Your task to perform on an android device: open app "Life360: Find Family & Friends" (install if not already installed), go to login, and select forgot password Image 0: 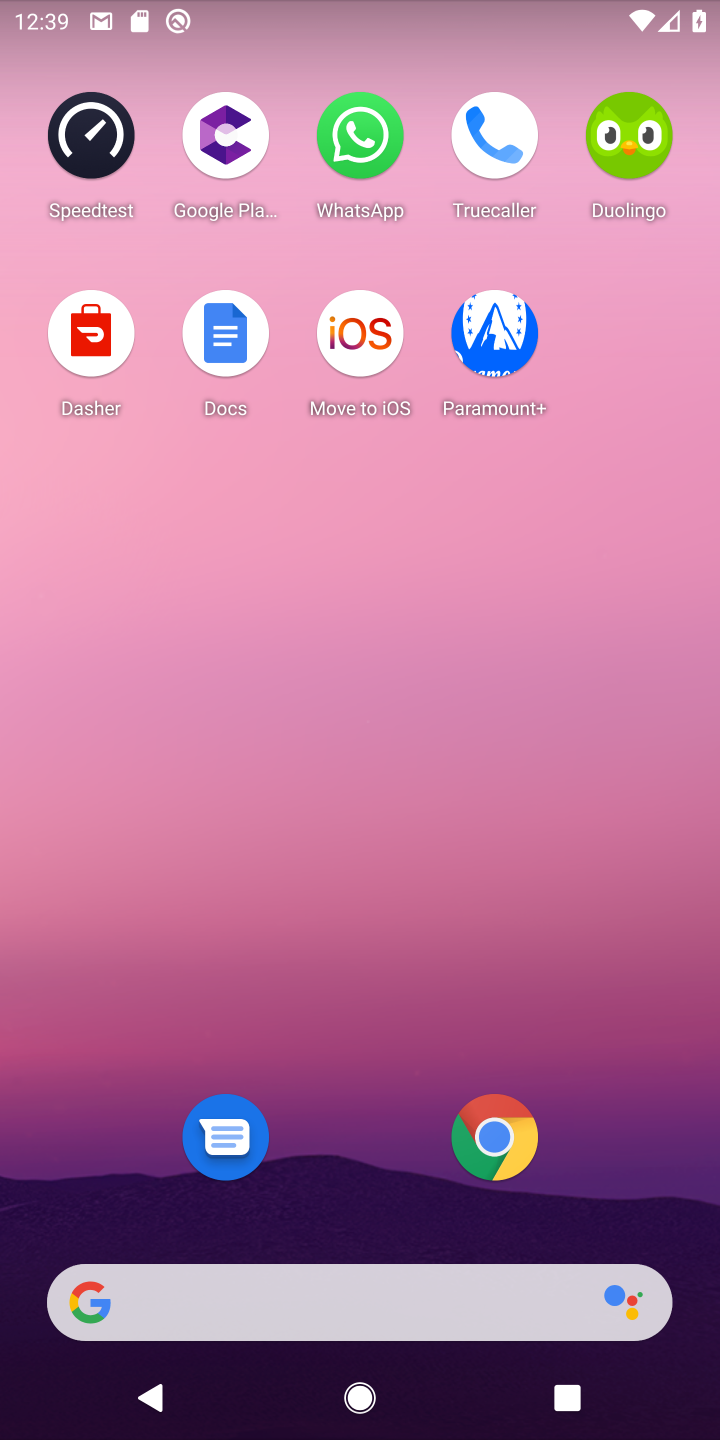
Step 0: drag from (622, 1217) to (565, 182)
Your task to perform on an android device: open app "Life360: Find Family & Friends" (install if not already installed), go to login, and select forgot password Image 1: 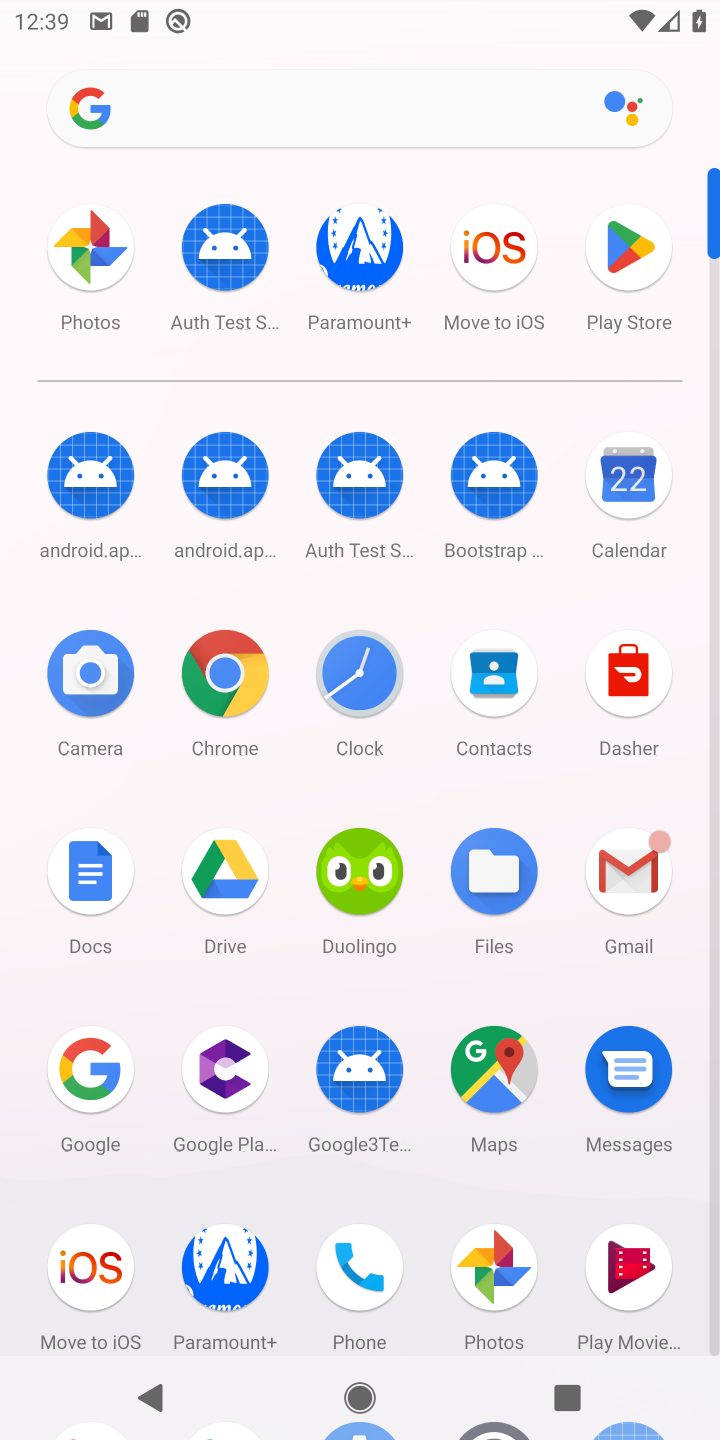
Step 1: drag from (552, 1196) to (571, 410)
Your task to perform on an android device: open app "Life360: Find Family & Friends" (install if not already installed), go to login, and select forgot password Image 2: 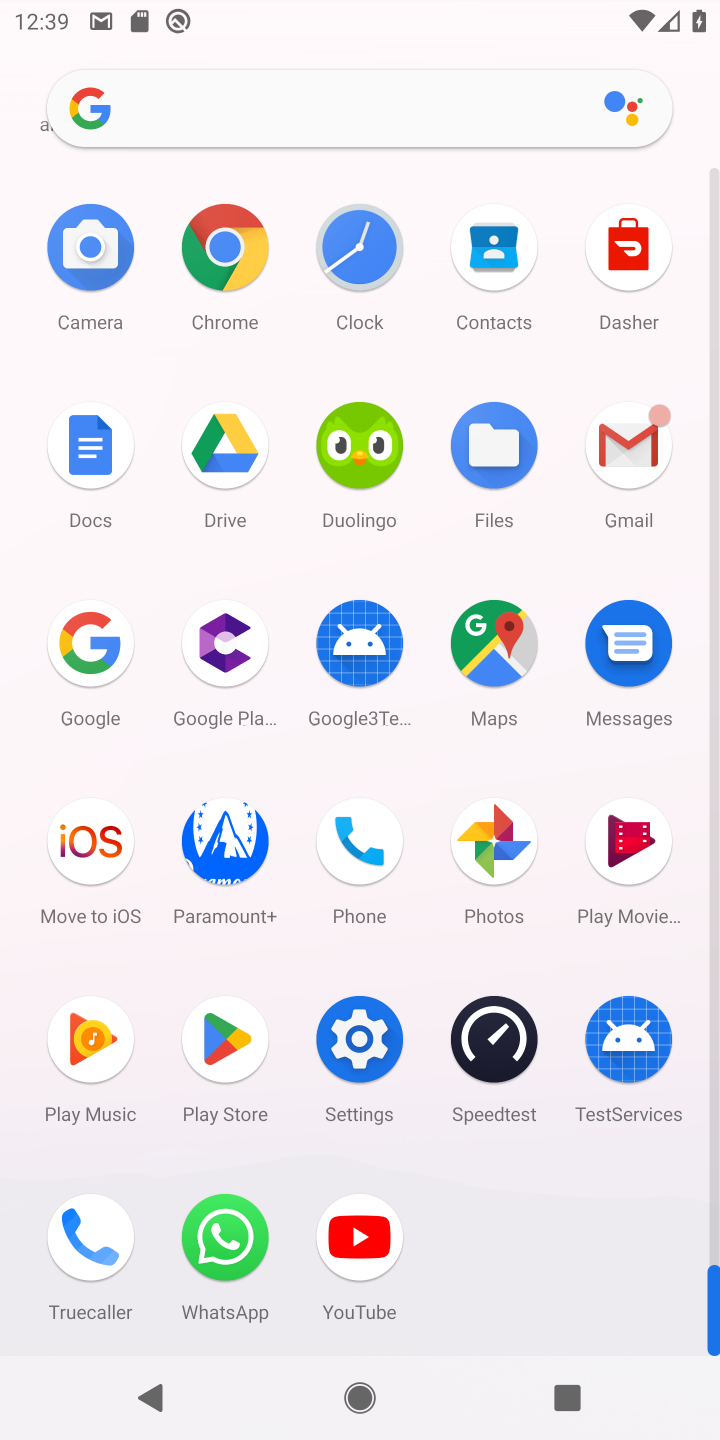
Step 2: click (226, 1048)
Your task to perform on an android device: open app "Life360: Find Family & Friends" (install if not already installed), go to login, and select forgot password Image 3: 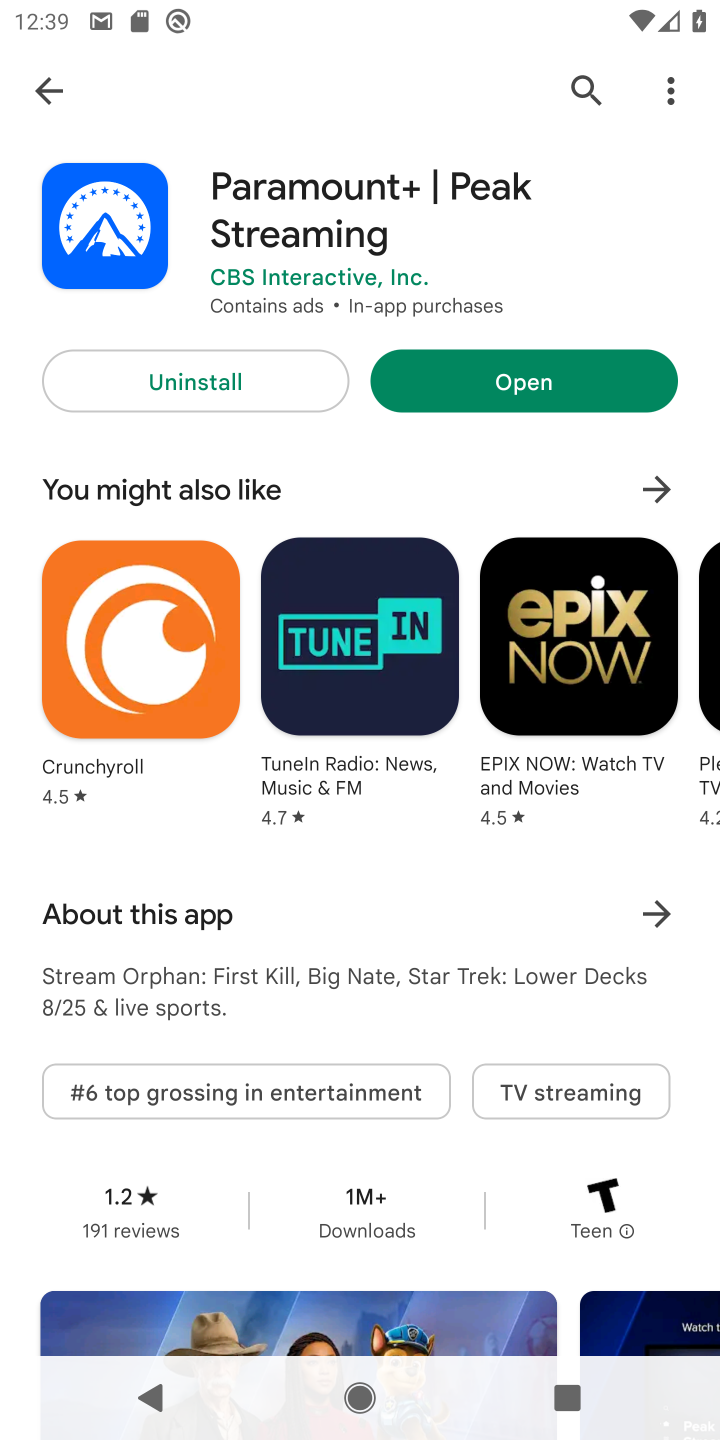
Step 3: click (581, 73)
Your task to perform on an android device: open app "Life360: Find Family & Friends" (install if not already installed), go to login, and select forgot password Image 4: 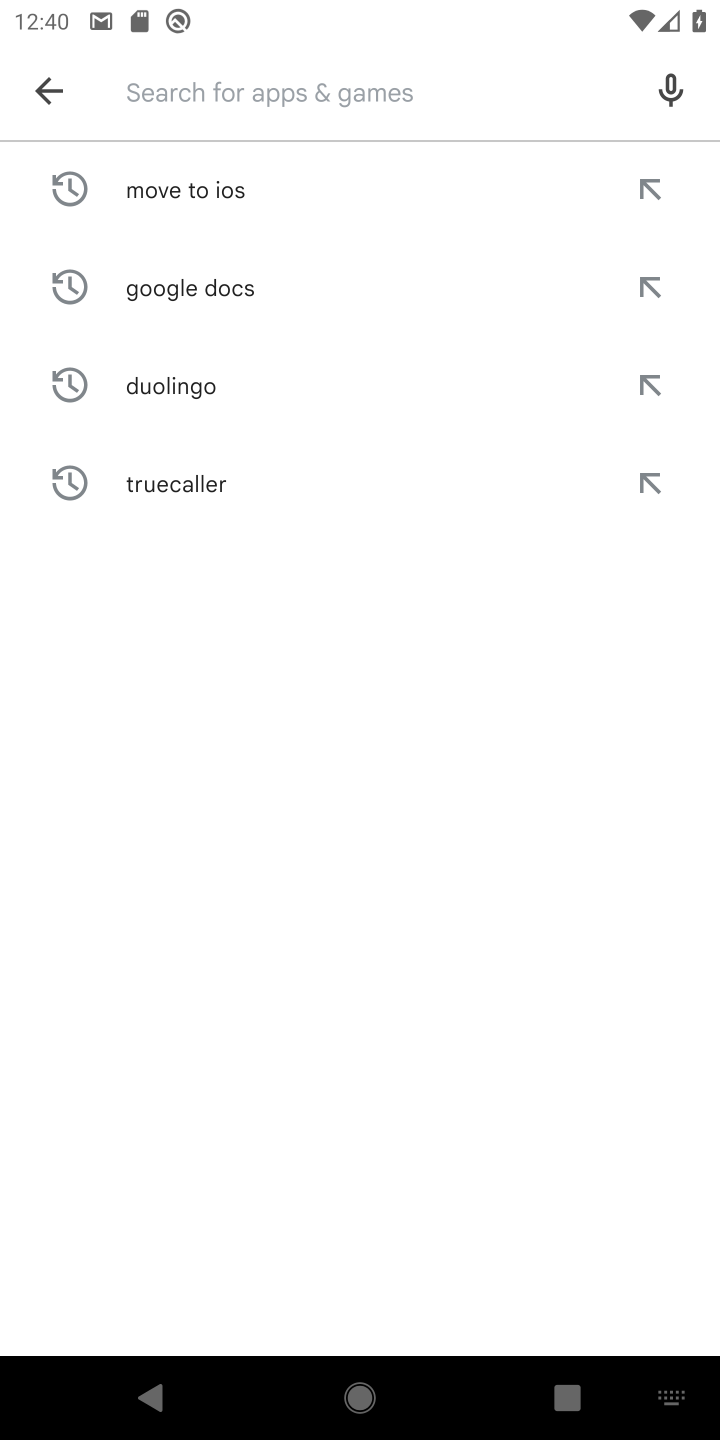
Step 4: type "life360: Find Family & Friends"
Your task to perform on an android device: open app "Life360: Find Family & Friends" (install if not already installed), go to login, and select forgot password Image 5: 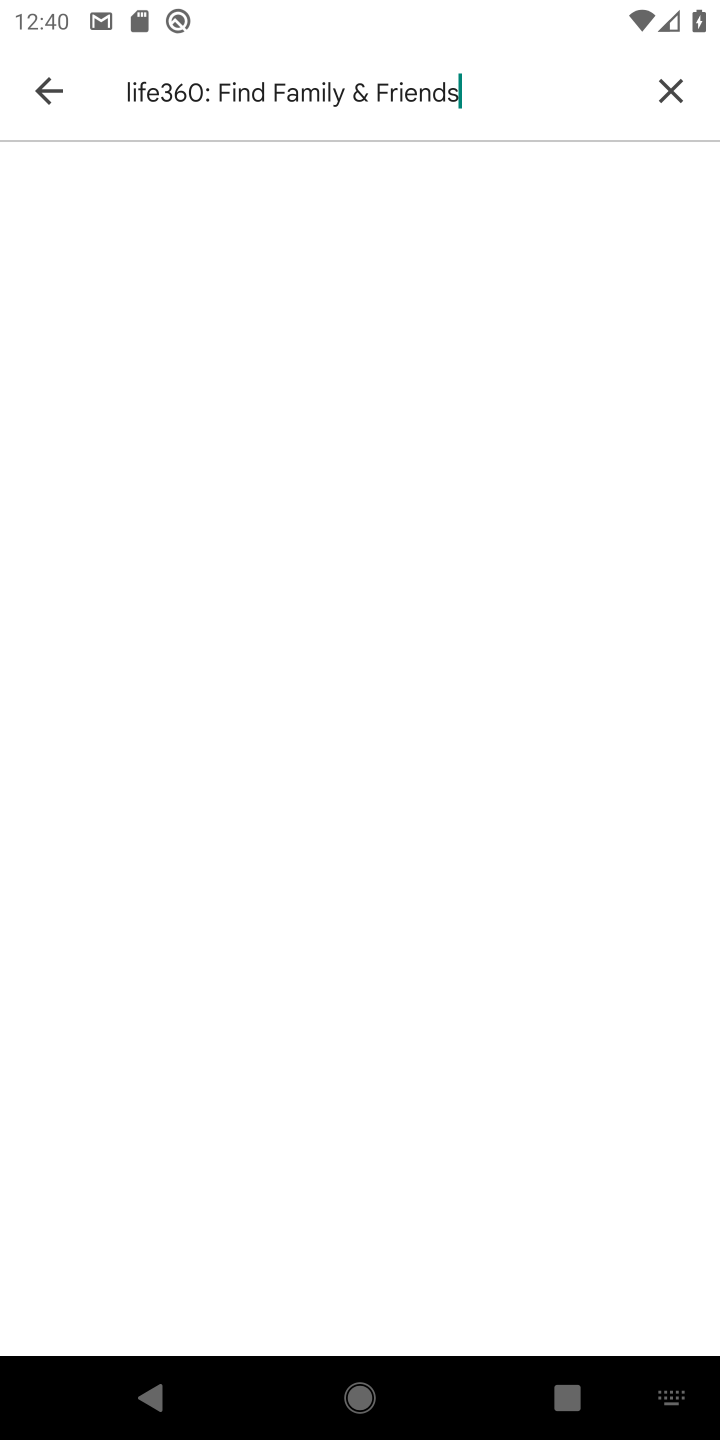
Step 5: task complete